Your task to perform on an android device: find photos in the google photos app Image 0: 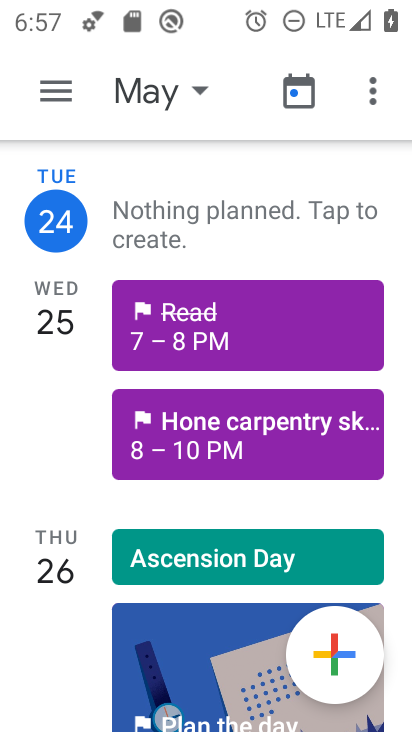
Step 0: press home button
Your task to perform on an android device: find photos in the google photos app Image 1: 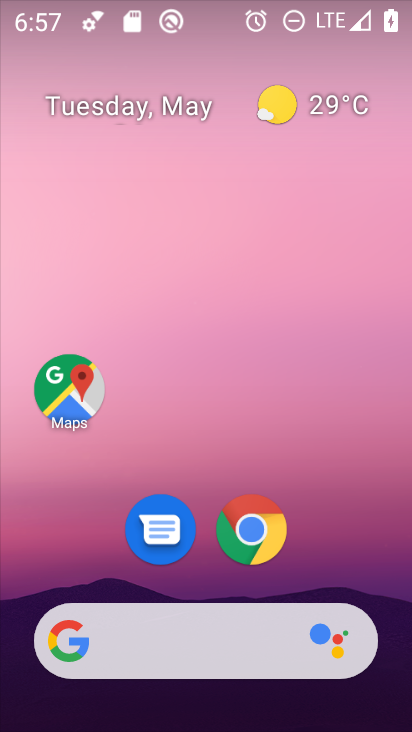
Step 1: drag from (400, 621) to (343, 193)
Your task to perform on an android device: find photos in the google photos app Image 2: 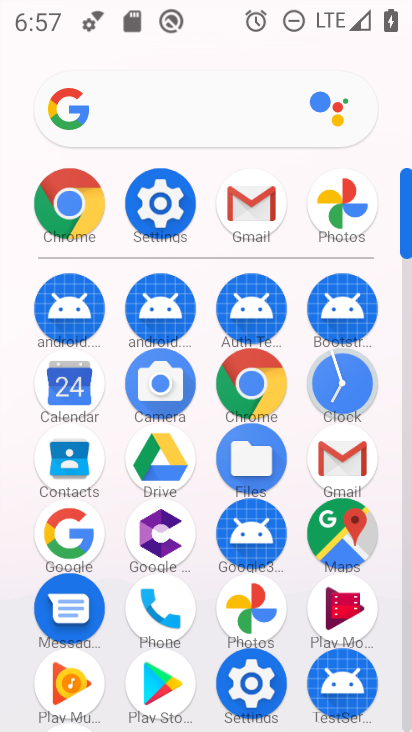
Step 2: click (244, 624)
Your task to perform on an android device: find photos in the google photos app Image 3: 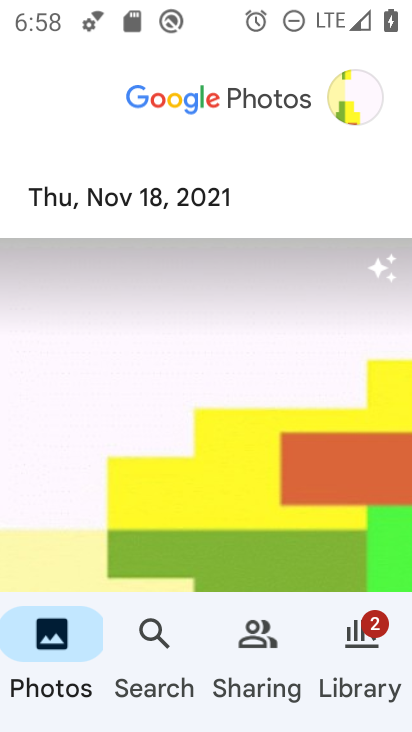
Step 3: task complete